Your task to perform on an android device: Search for Italian restaurants on Maps Image 0: 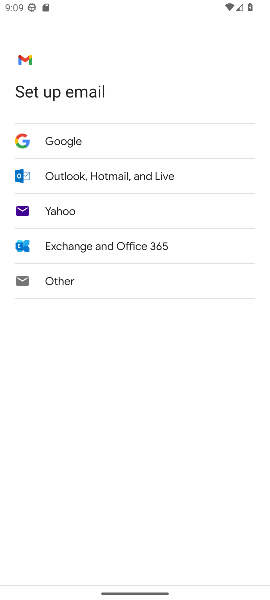
Step 0: press home button
Your task to perform on an android device: Search for Italian restaurants on Maps Image 1: 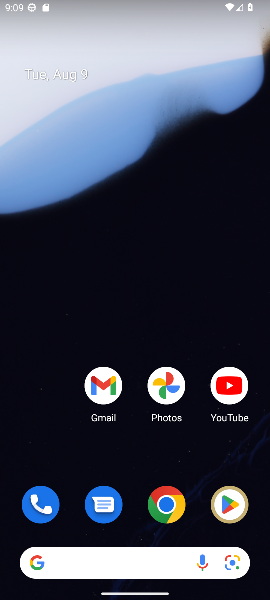
Step 1: drag from (136, 469) to (121, 111)
Your task to perform on an android device: Search for Italian restaurants on Maps Image 2: 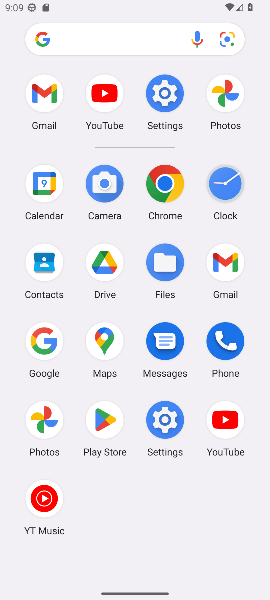
Step 2: click (105, 333)
Your task to perform on an android device: Search for Italian restaurants on Maps Image 3: 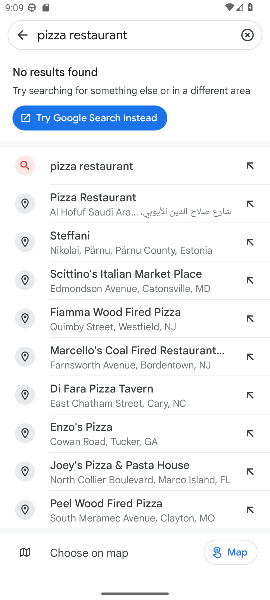
Step 3: click (245, 33)
Your task to perform on an android device: Search for Italian restaurants on Maps Image 4: 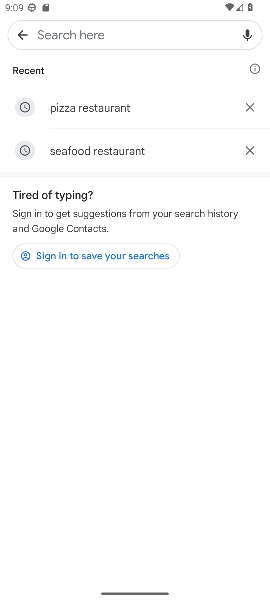
Step 4: click (94, 34)
Your task to perform on an android device: Search for Italian restaurants on Maps Image 5: 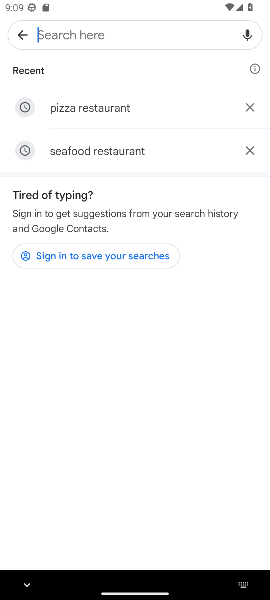
Step 5: type "italian"
Your task to perform on an android device: Search for Italian restaurants on Maps Image 6: 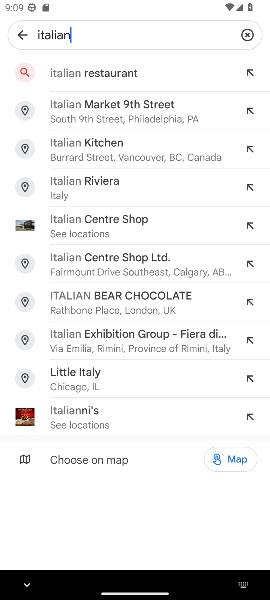
Step 6: click (95, 68)
Your task to perform on an android device: Search for Italian restaurants on Maps Image 7: 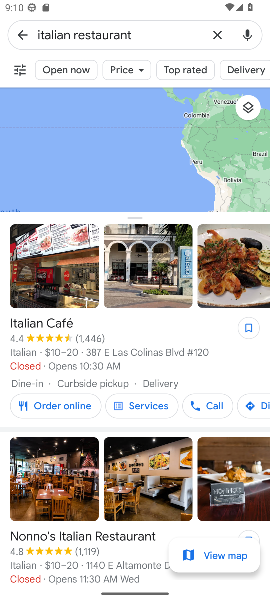
Step 7: task complete